Your task to perform on an android device: turn off smart reply in the gmail app Image 0: 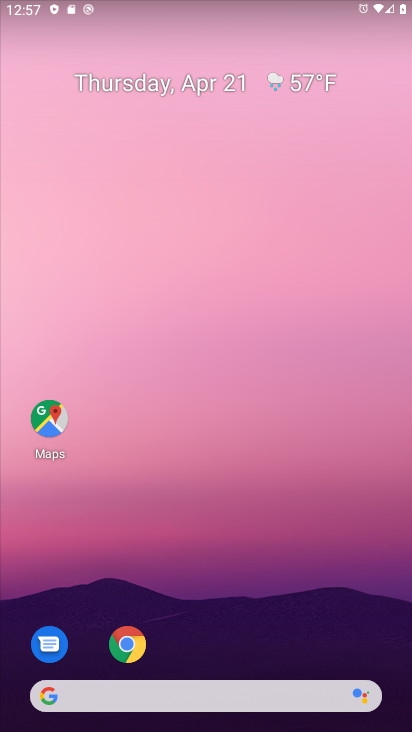
Step 0: drag from (219, 667) to (218, 53)
Your task to perform on an android device: turn off smart reply in the gmail app Image 1: 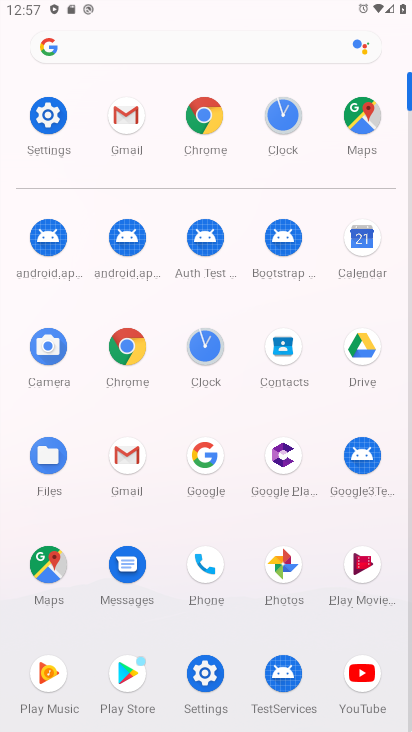
Step 1: click (122, 463)
Your task to perform on an android device: turn off smart reply in the gmail app Image 2: 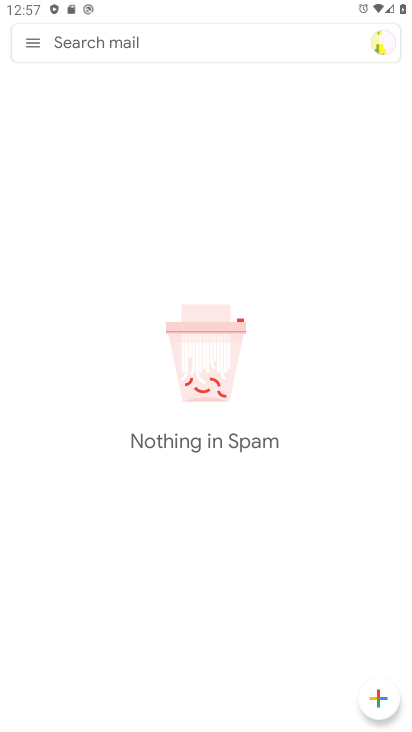
Step 2: click (27, 47)
Your task to perform on an android device: turn off smart reply in the gmail app Image 3: 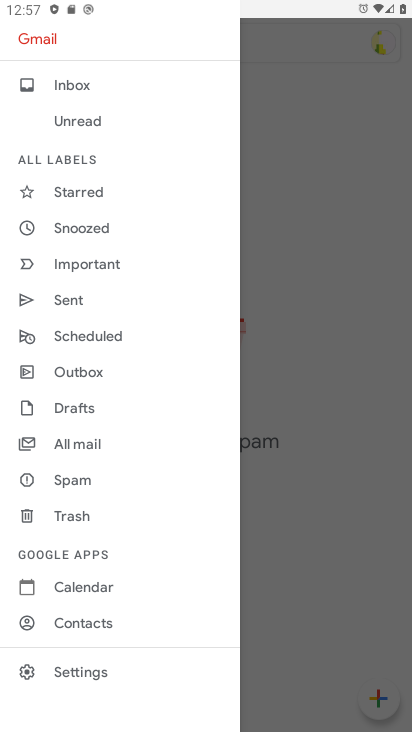
Step 3: click (114, 670)
Your task to perform on an android device: turn off smart reply in the gmail app Image 4: 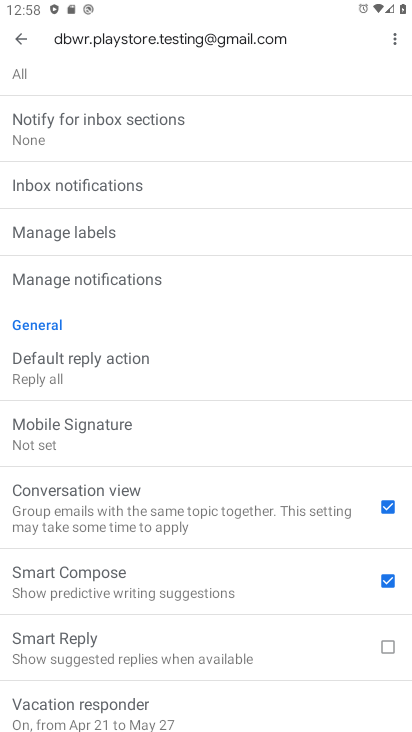
Step 4: task complete